Your task to perform on an android device: allow notifications from all sites in the chrome app Image 0: 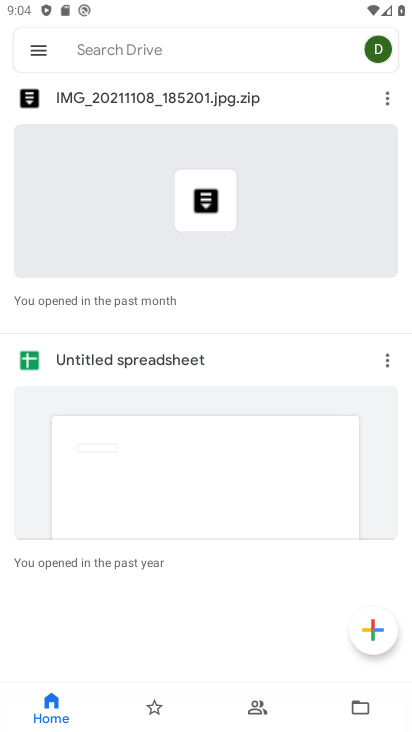
Step 0: press home button
Your task to perform on an android device: allow notifications from all sites in the chrome app Image 1: 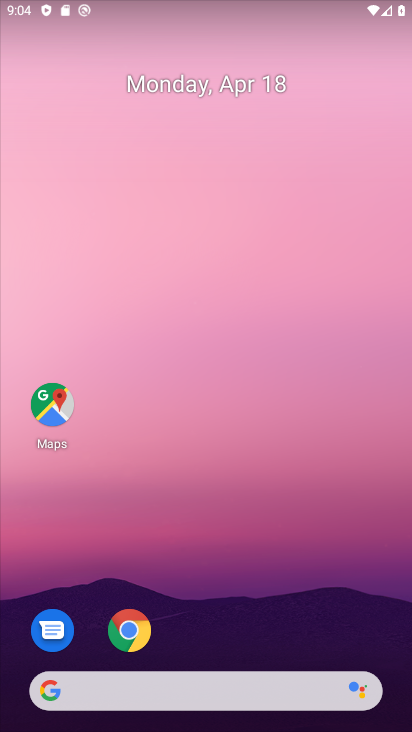
Step 1: click (133, 621)
Your task to perform on an android device: allow notifications from all sites in the chrome app Image 2: 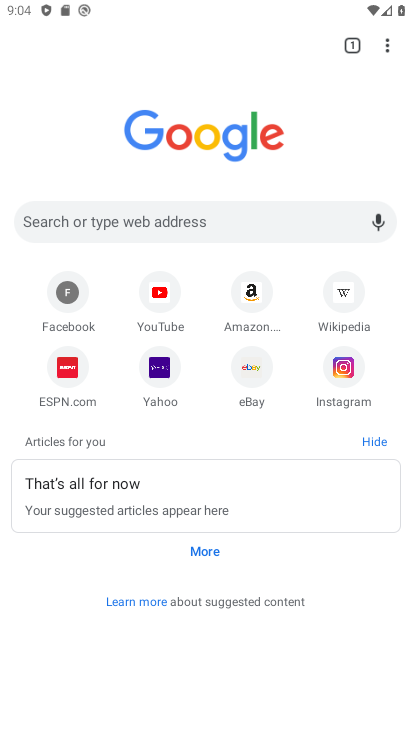
Step 2: click (390, 45)
Your task to perform on an android device: allow notifications from all sites in the chrome app Image 3: 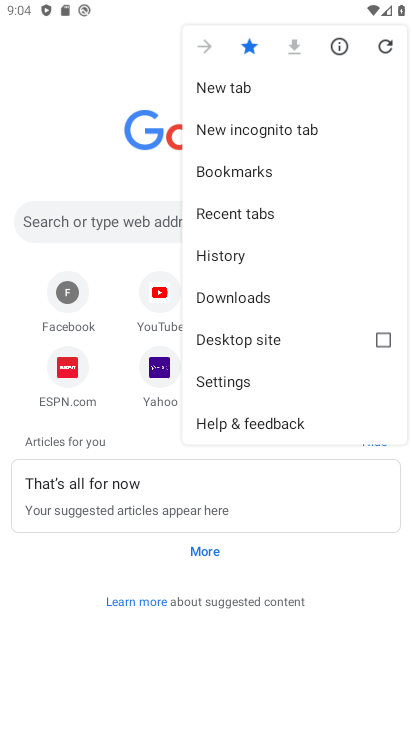
Step 3: click (259, 376)
Your task to perform on an android device: allow notifications from all sites in the chrome app Image 4: 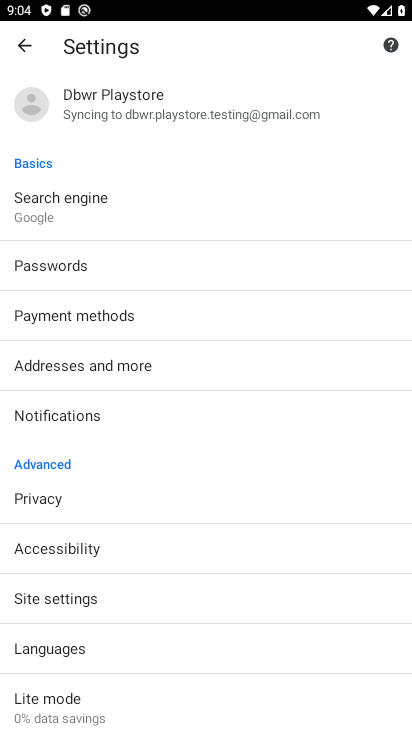
Step 4: click (175, 421)
Your task to perform on an android device: allow notifications from all sites in the chrome app Image 5: 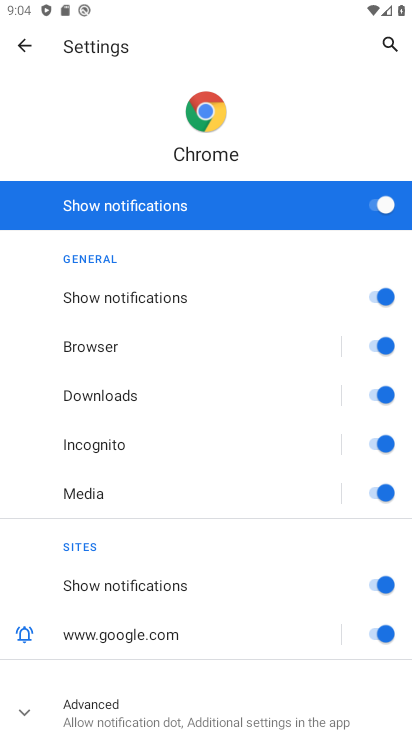
Step 5: task complete